Your task to perform on an android device: Open the calendar app, open the side menu, and click the "Day" option Image 0: 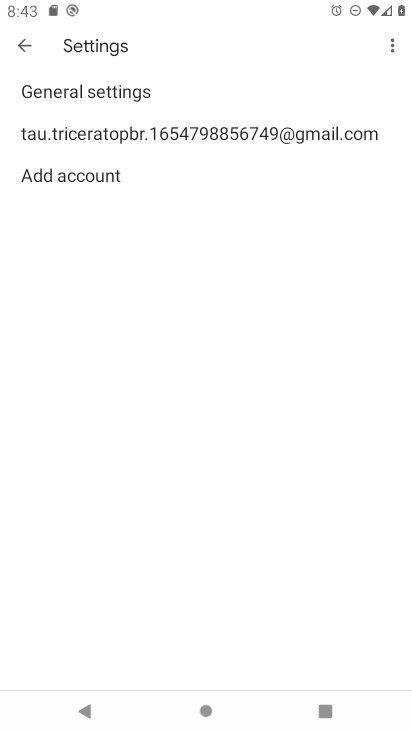
Step 0: press home button
Your task to perform on an android device: Open the calendar app, open the side menu, and click the "Day" option Image 1: 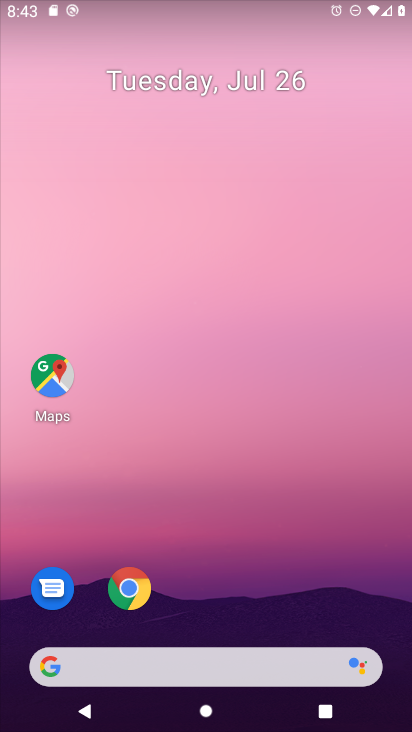
Step 1: drag from (133, 696) to (189, 159)
Your task to perform on an android device: Open the calendar app, open the side menu, and click the "Day" option Image 2: 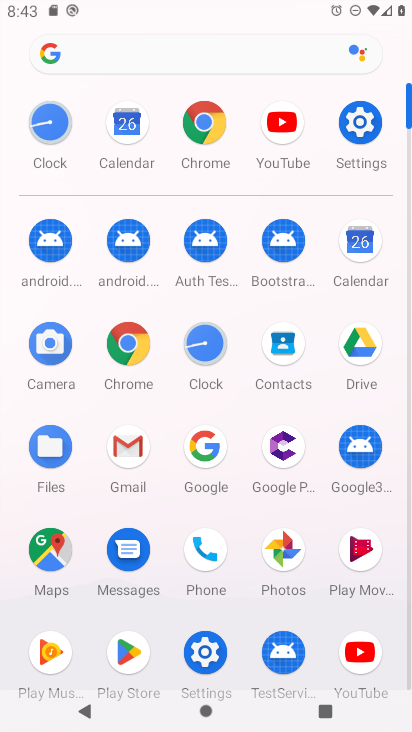
Step 2: click (370, 259)
Your task to perform on an android device: Open the calendar app, open the side menu, and click the "Day" option Image 3: 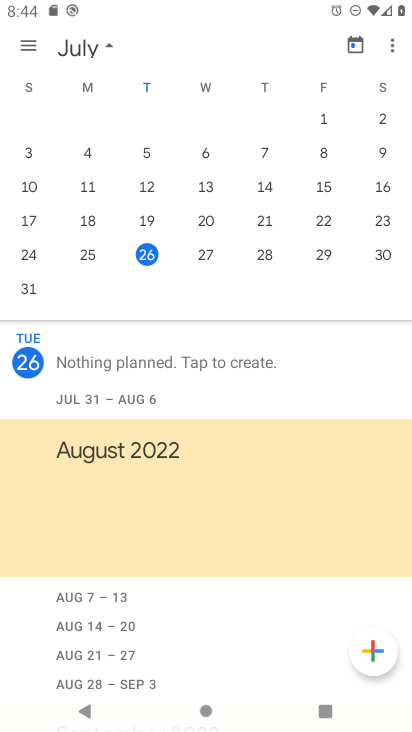
Step 3: click (32, 54)
Your task to perform on an android device: Open the calendar app, open the side menu, and click the "Day" option Image 4: 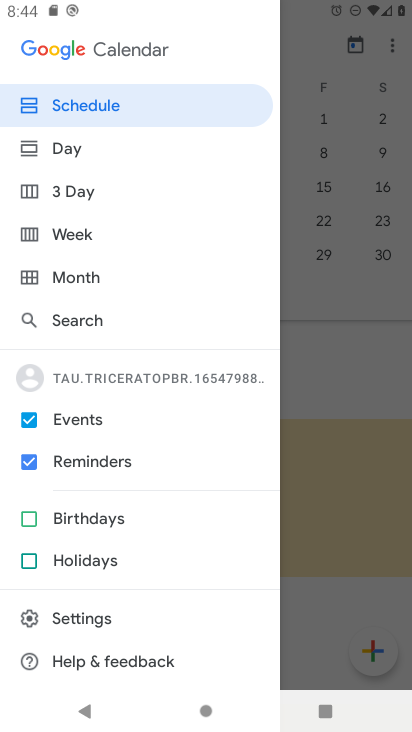
Step 4: click (86, 150)
Your task to perform on an android device: Open the calendar app, open the side menu, and click the "Day" option Image 5: 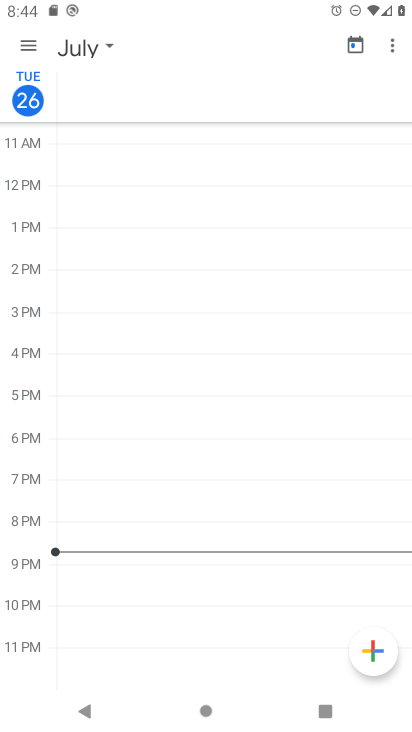
Step 5: task complete